Your task to perform on an android device: Open Google Maps Image 0: 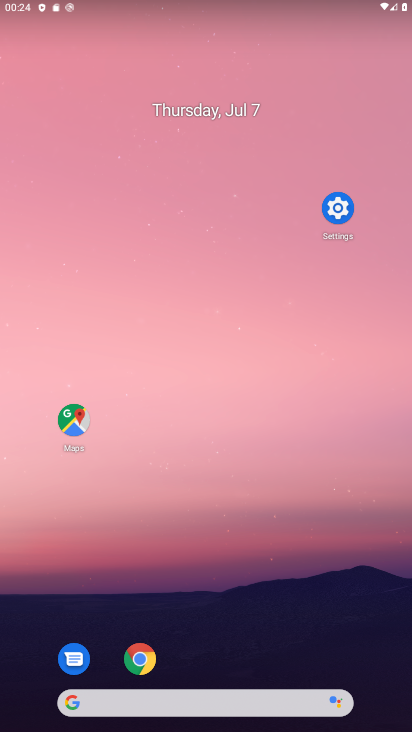
Step 0: drag from (114, 309) to (96, 99)
Your task to perform on an android device: Open Google Maps Image 1: 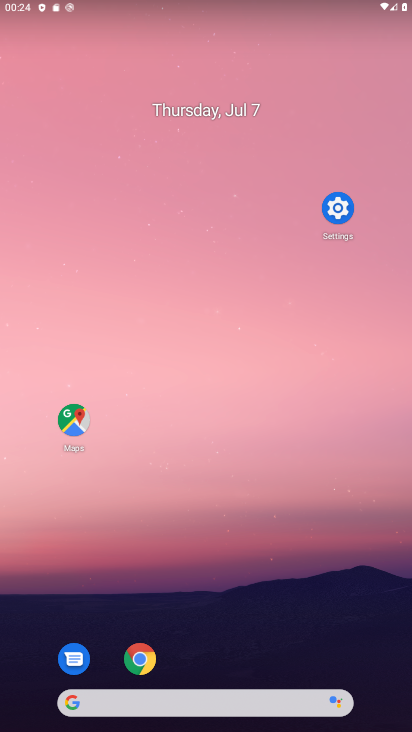
Step 1: drag from (294, 713) to (169, 77)
Your task to perform on an android device: Open Google Maps Image 2: 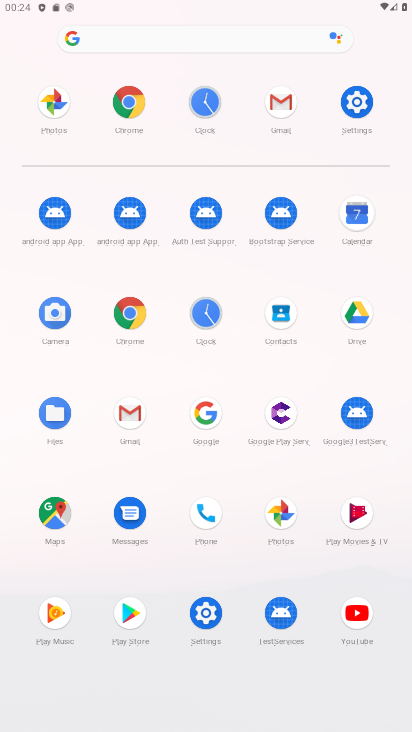
Step 2: click (60, 514)
Your task to perform on an android device: Open Google Maps Image 3: 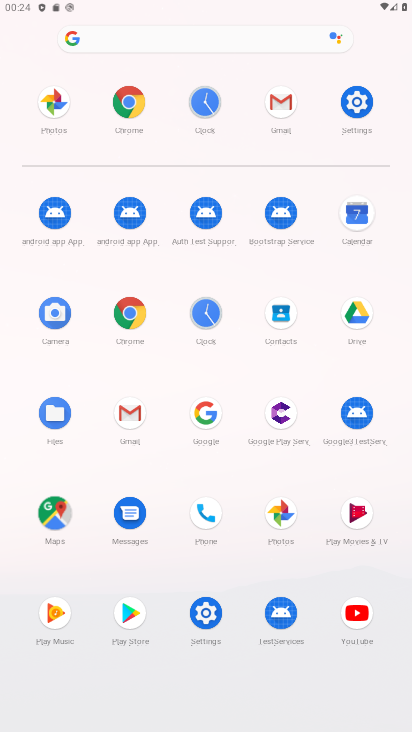
Step 3: click (57, 517)
Your task to perform on an android device: Open Google Maps Image 4: 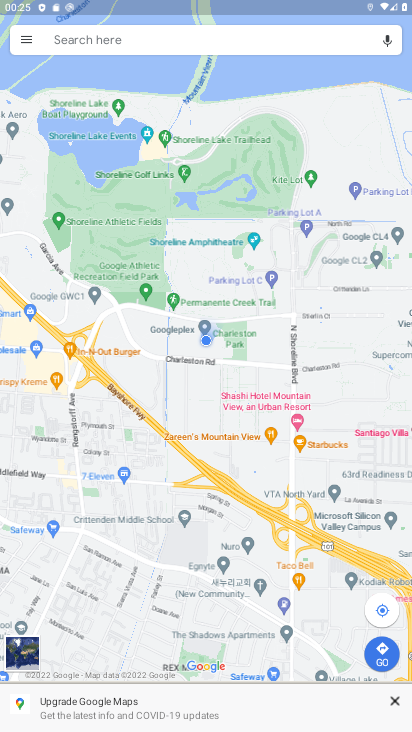
Step 4: press back button
Your task to perform on an android device: Open Google Maps Image 5: 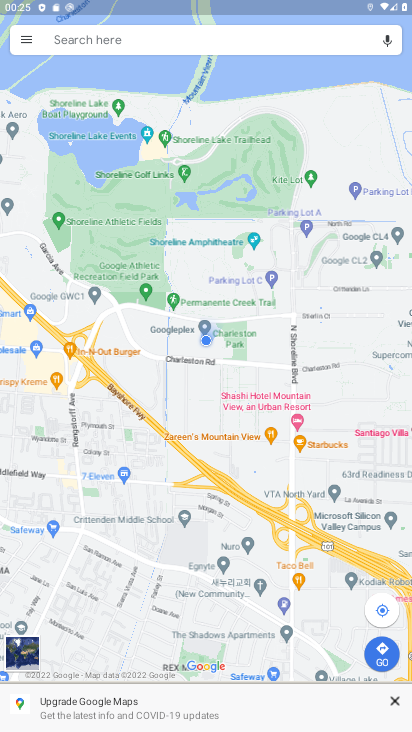
Step 5: press back button
Your task to perform on an android device: Open Google Maps Image 6: 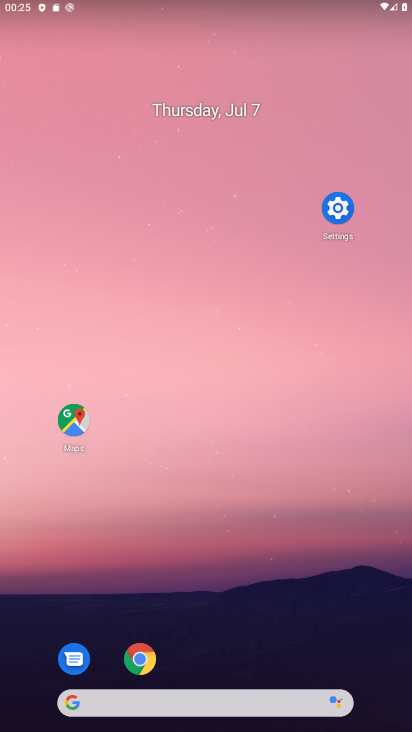
Step 6: drag from (254, 718) to (76, 71)
Your task to perform on an android device: Open Google Maps Image 7: 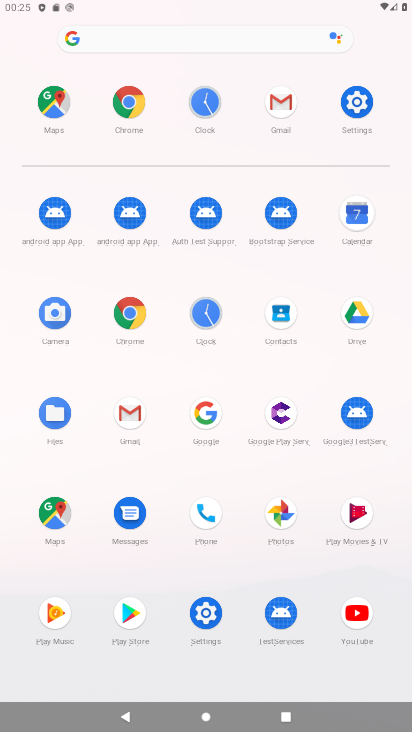
Step 7: click (63, 110)
Your task to perform on an android device: Open Google Maps Image 8: 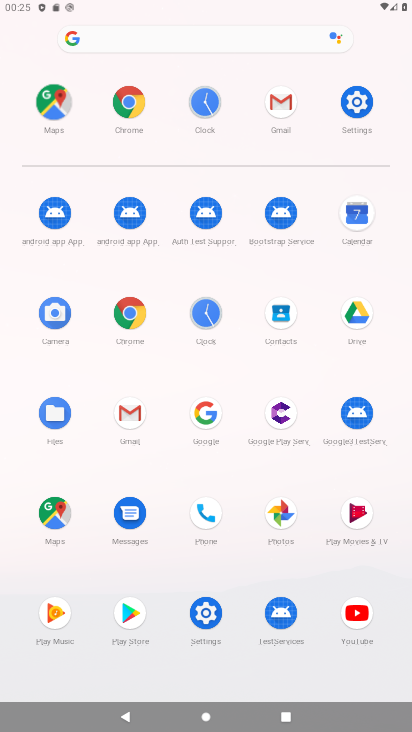
Step 8: click (63, 110)
Your task to perform on an android device: Open Google Maps Image 9: 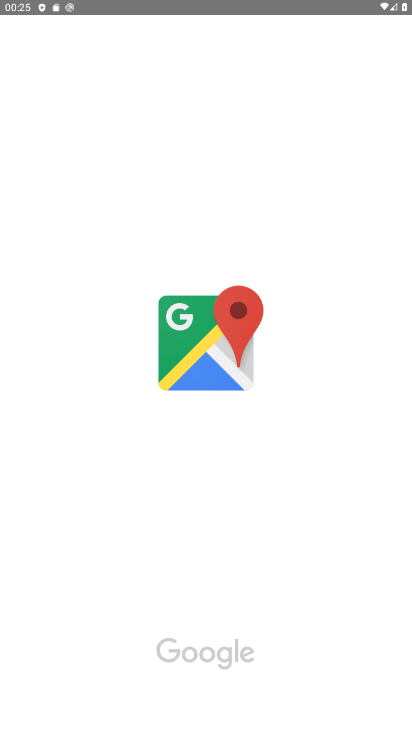
Step 9: click (63, 110)
Your task to perform on an android device: Open Google Maps Image 10: 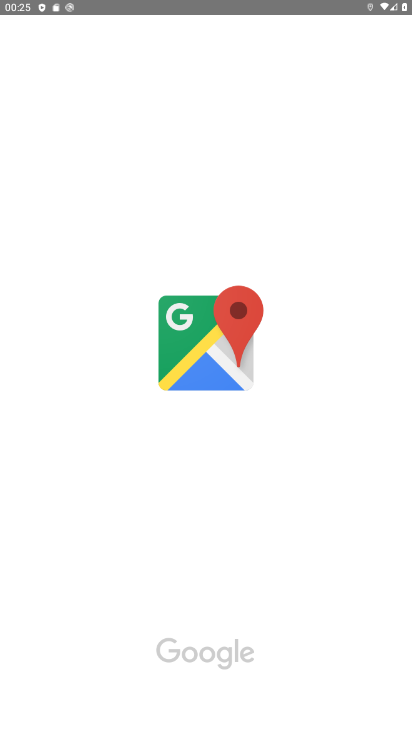
Step 10: click (63, 110)
Your task to perform on an android device: Open Google Maps Image 11: 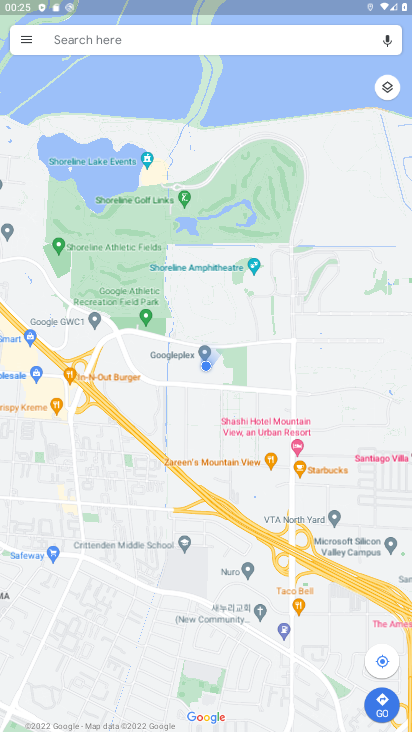
Step 11: task complete